Your task to perform on an android device: What's on my calendar today? Image 0: 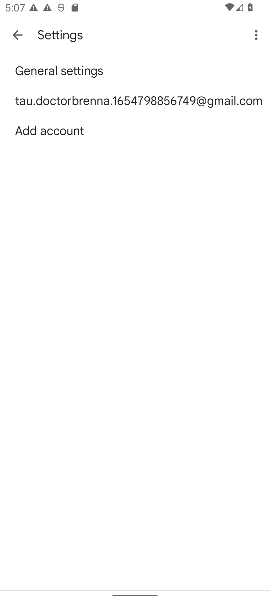
Step 0: press home button
Your task to perform on an android device: What's on my calendar today? Image 1: 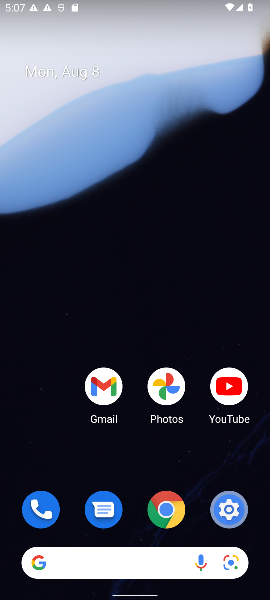
Step 1: drag from (130, 477) to (117, 3)
Your task to perform on an android device: What's on my calendar today? Image 2: 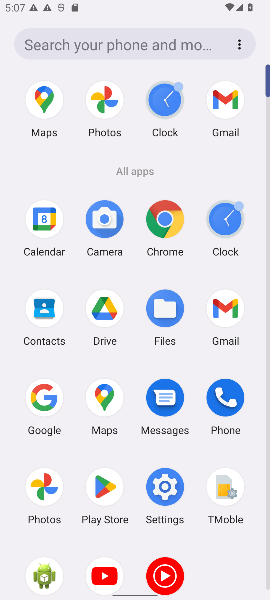
Step 2: click (45, 219)
Your task to perform on an android device: What's on my calendar today? Image 3: 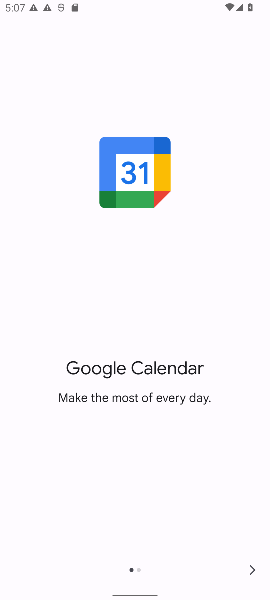
Step 3: click (251, 569)
Your task to perform on an android device: What's on my calendar today? Image 4: 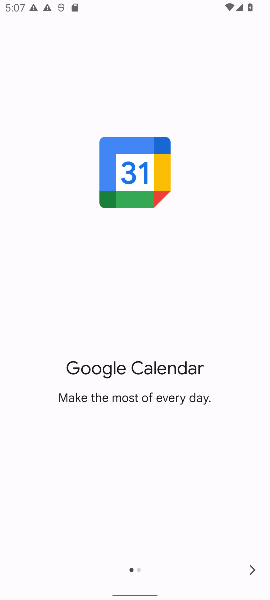
Step 4: click (251, 569)
Your task to perform on an android device: What's on my calendar today? Image 5: 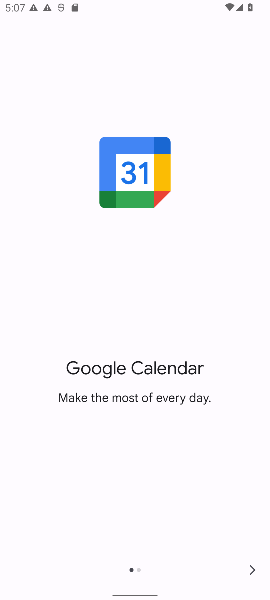
Step 5: click (251, 569)
Your task to perform on an android device: What's on my calendar today? Image 6: 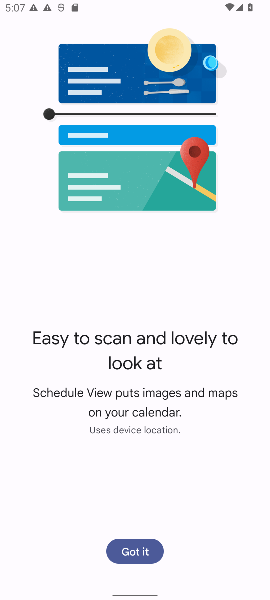
Step 6: click (134, 551)
Your task to perform on an android device: What's on my calendar today? Image 7: 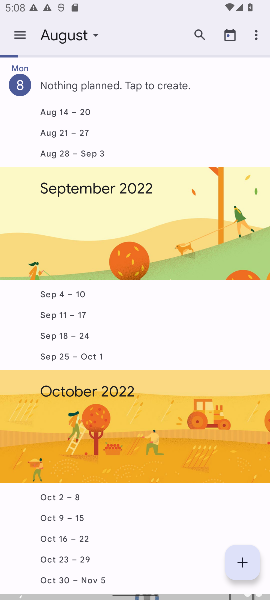
Step 7: click (19, 34)
Your task to perform on an android device: What's on my calendar today? Image 8: 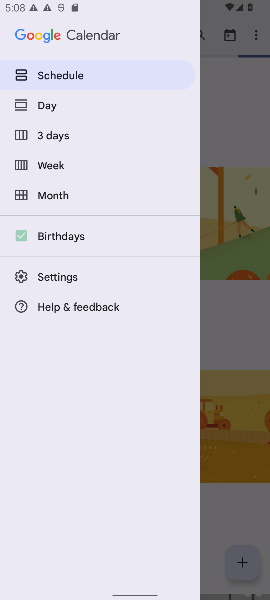
Step 8: click (49, 103)
Your task to perform on an android device: What's on my calendar today? Image 9: 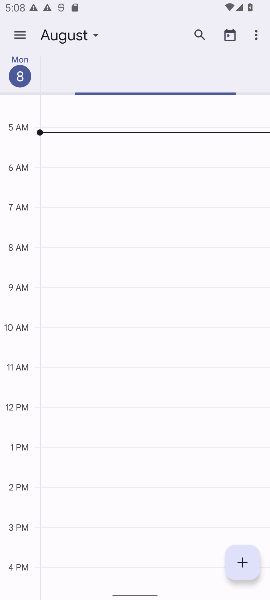
Step 9: task complete